Your task to perform on an android device: open app "Walmart Shopping & Grocery" (install if not already installed) and enter user name: "Hans@icloud.com" and password: "executing" Image 0: 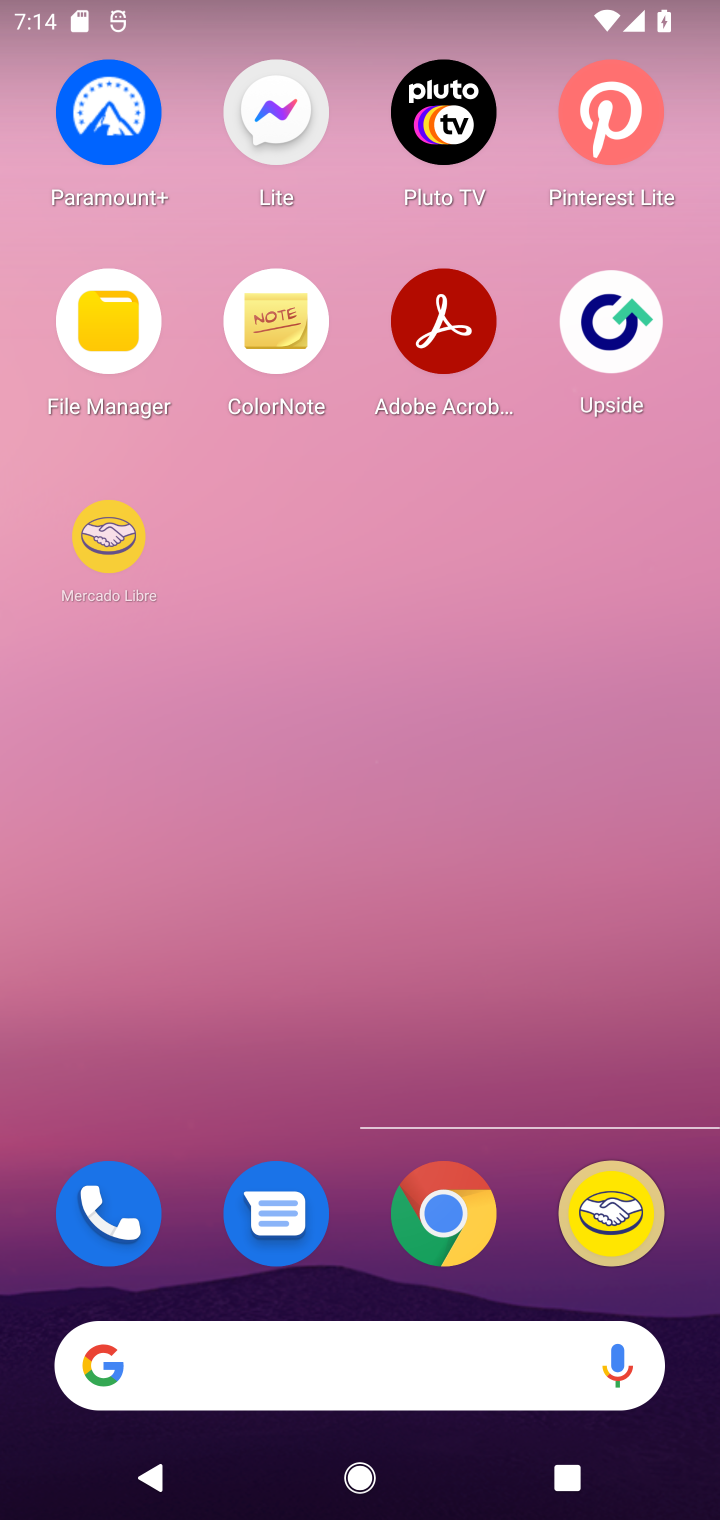
Step 0: press home button
Your task to perform on an android device: open app "Walmart Shopping & Grocery" (install if not already installed) and enter user name: "Hans@icloud.com" and password: "executing" Image 1: 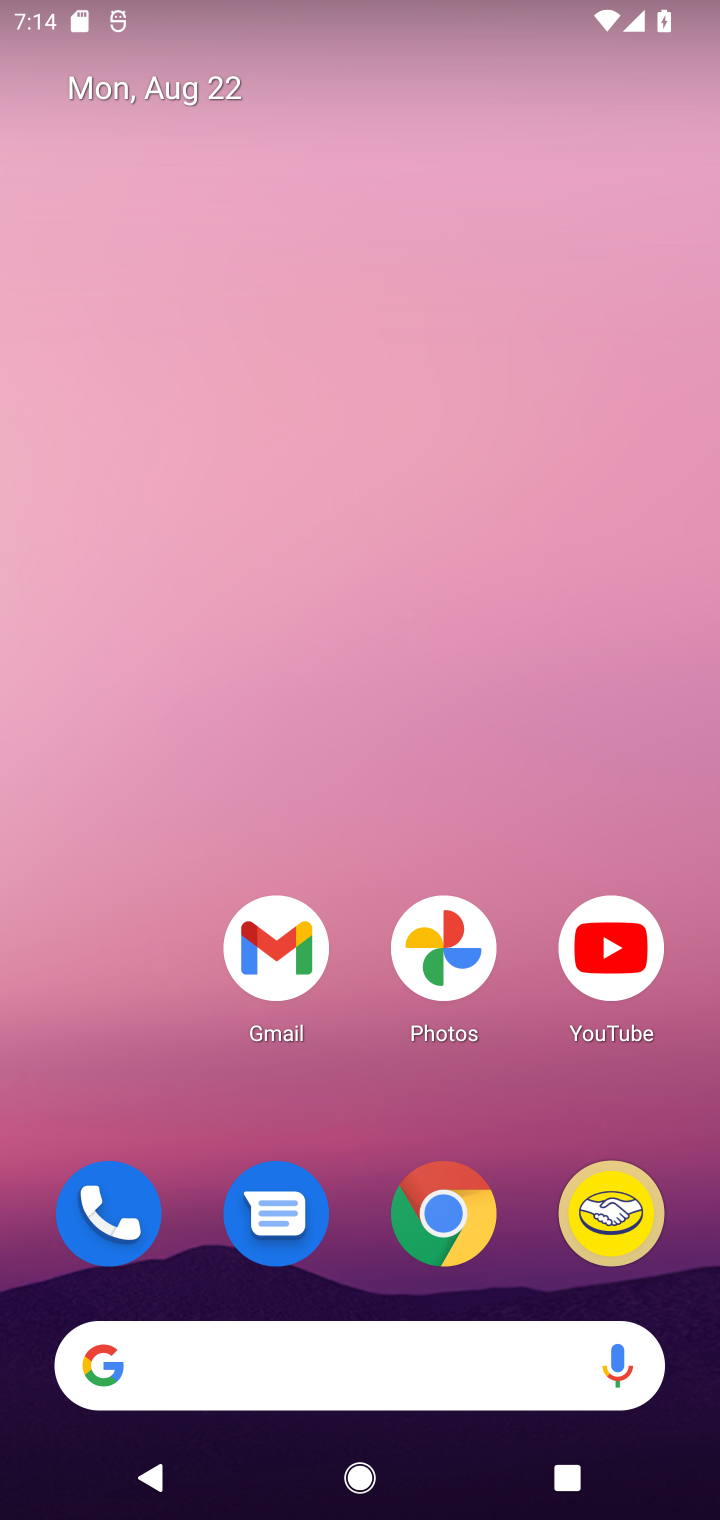
Step 1: drag from (339, 1119) to (433, 109)
Your task to perform on an android device: open app "Walmart Shopping & Grocery" (install if not already installed) and enter user name: "Hans@icloud.com" and password: "executing" Image 2: 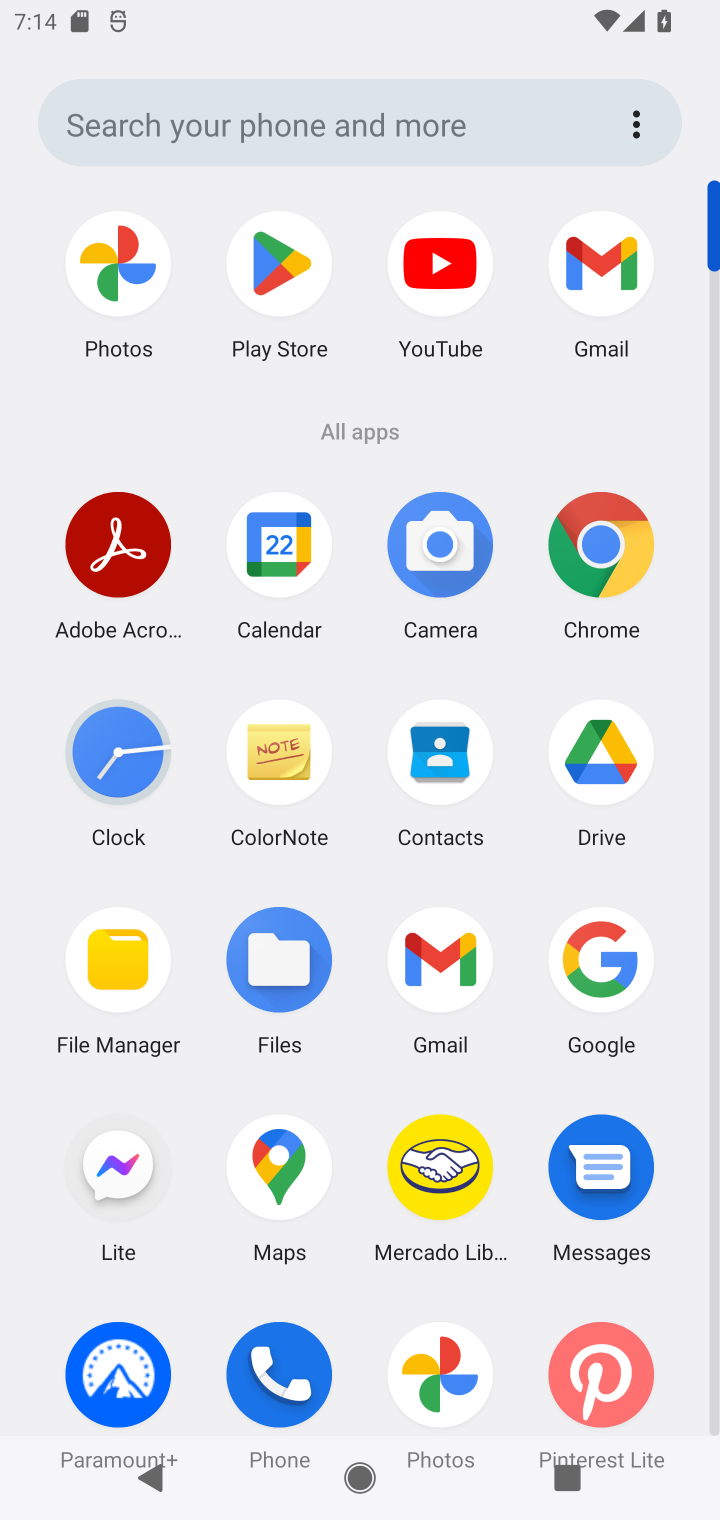
Step 2: click (270, 244)
Your task to perform on an android device: open app "Walmart Shopping & Grocery" (install if not already installed) and enter user name: "Hans@icloud.com" and password: "executing" Image 3: 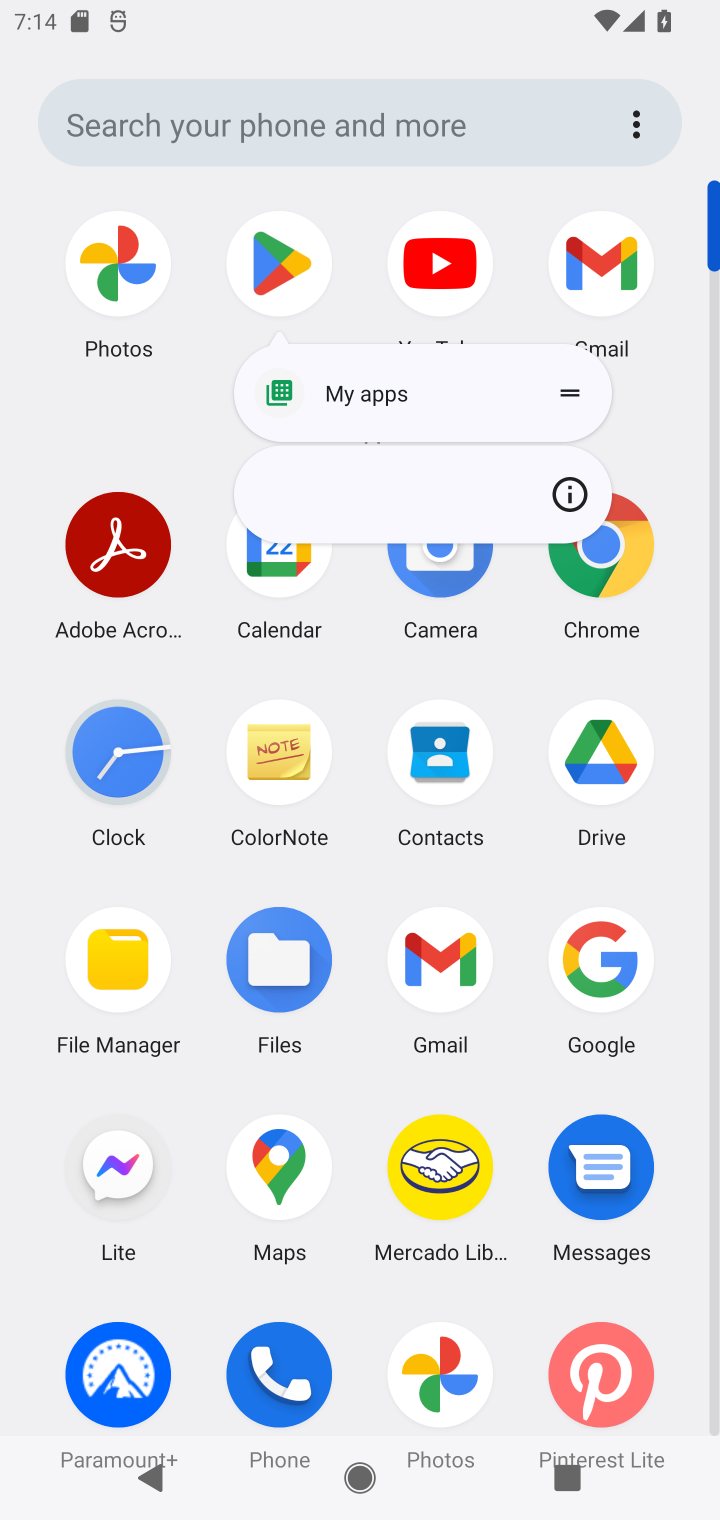
Step 3: click (270, 249)
Your task to perform on an android device: open app "Walmart Shopping & Grocery" (install if not already installed) and enter user name: "Hans@icloud.com" and password: "executing" Image 4: 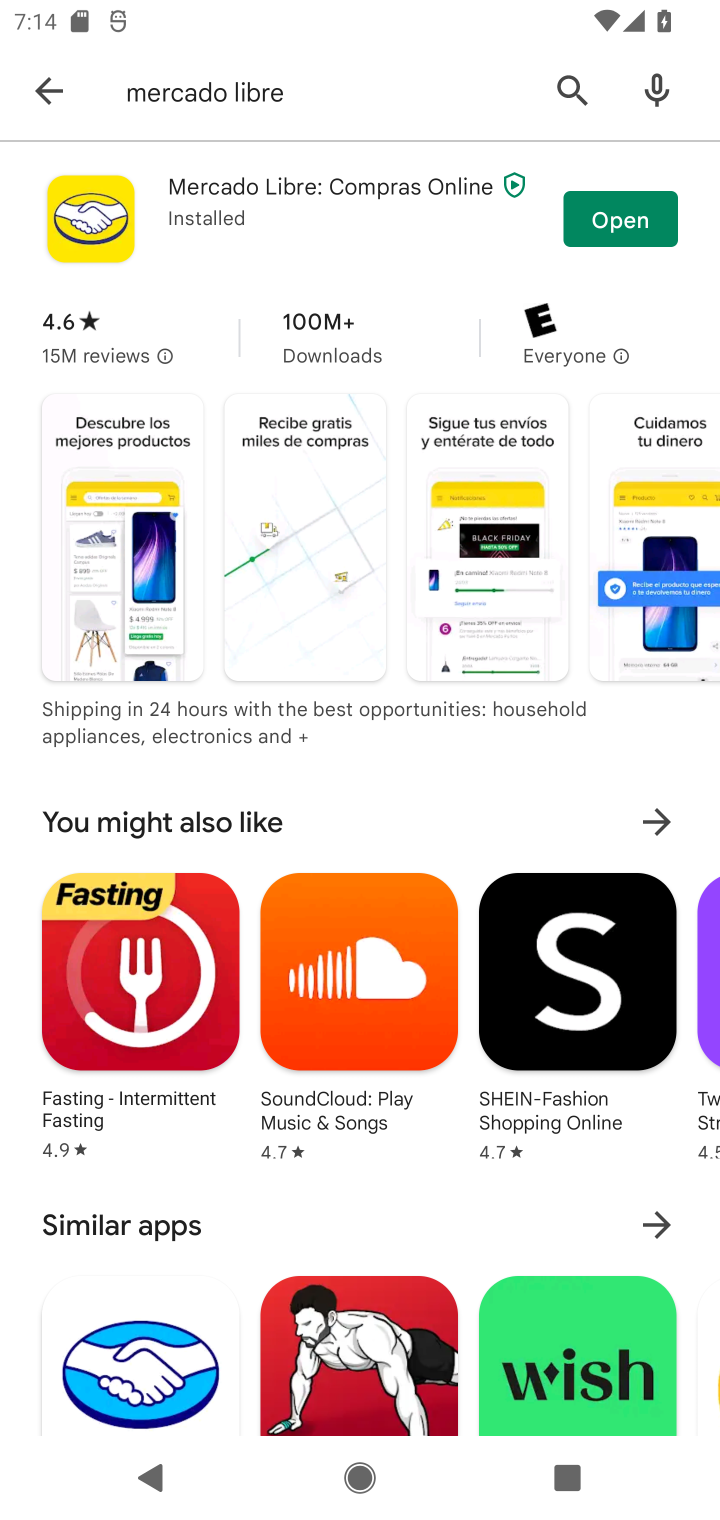
Step 4: click (576, 79)
Your task to perform on an android device: open app "Walmart Shopping & Grocery" (install if not already installed) and enter user name: "Hans@icloud.com" and password: "executing" Image 5: 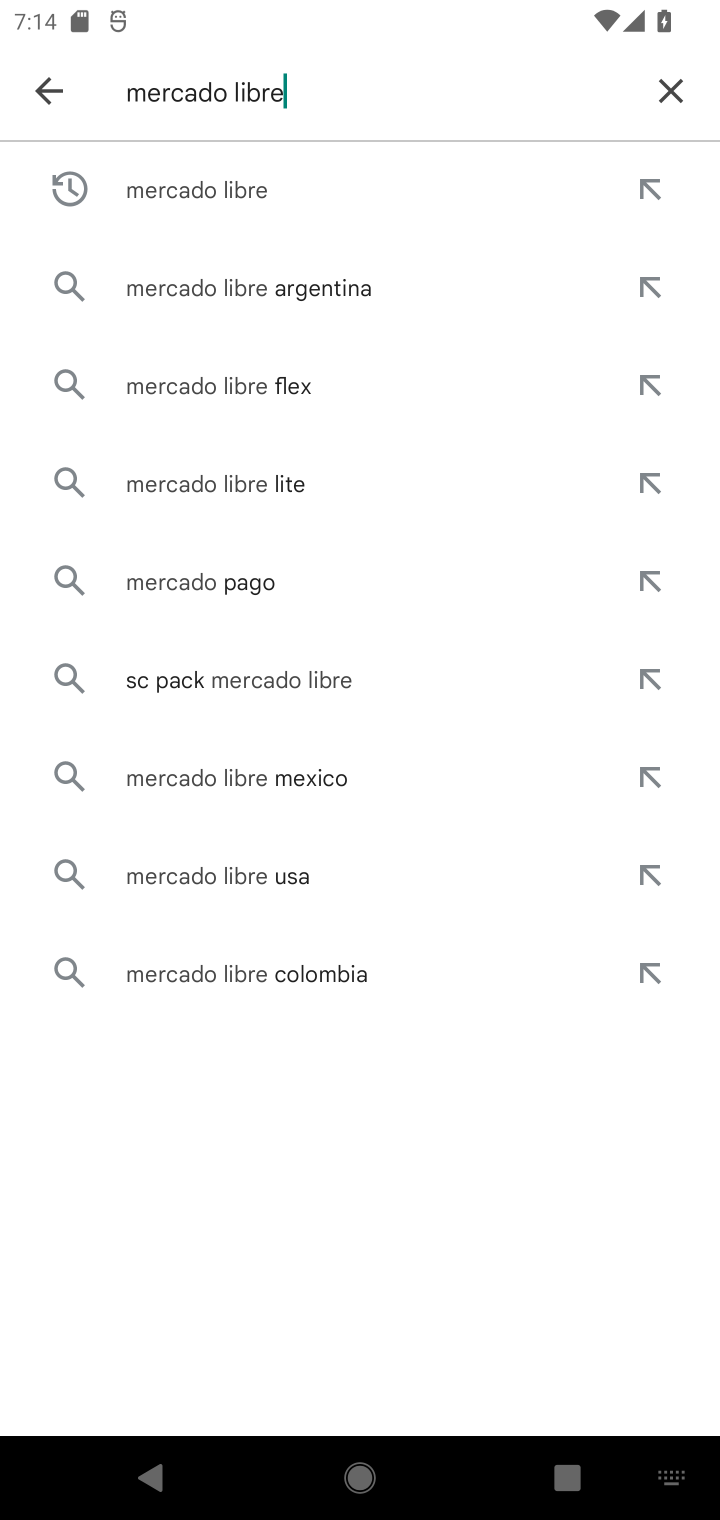
Step 5: click (674, 78)
Your task to perform on an android device: open app "Walmart Shopping & Grocery" (install if not already installed) and enter user name: "Hans@icloud.com" and password: "executing" Image 6: 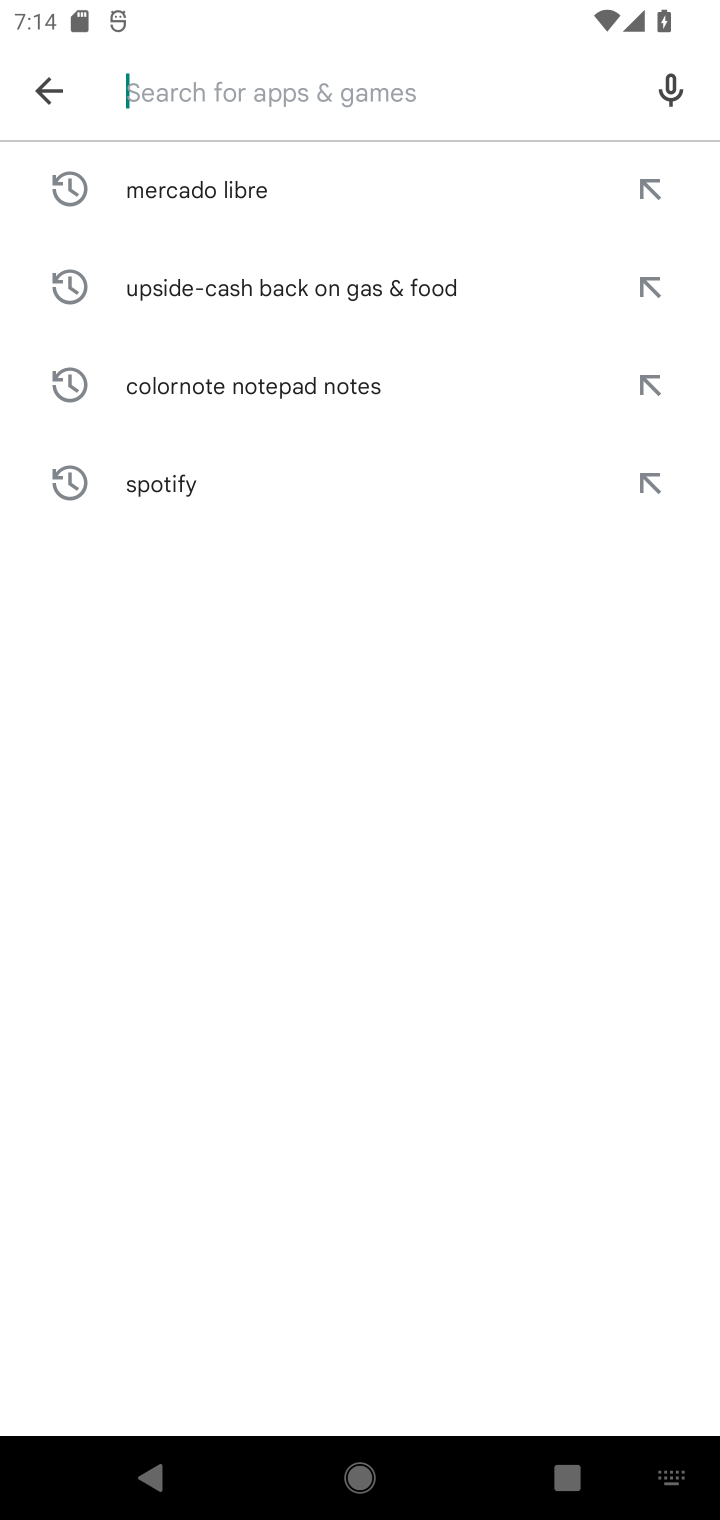
Step 6: type "Walmart Shopping & Grocery"
Your task to perform on an android device: open app "Walmart Shopping & Grocery" (install if not already installed) and enter user name: "Hans@icloud.com" and password: "executing" Image 7: 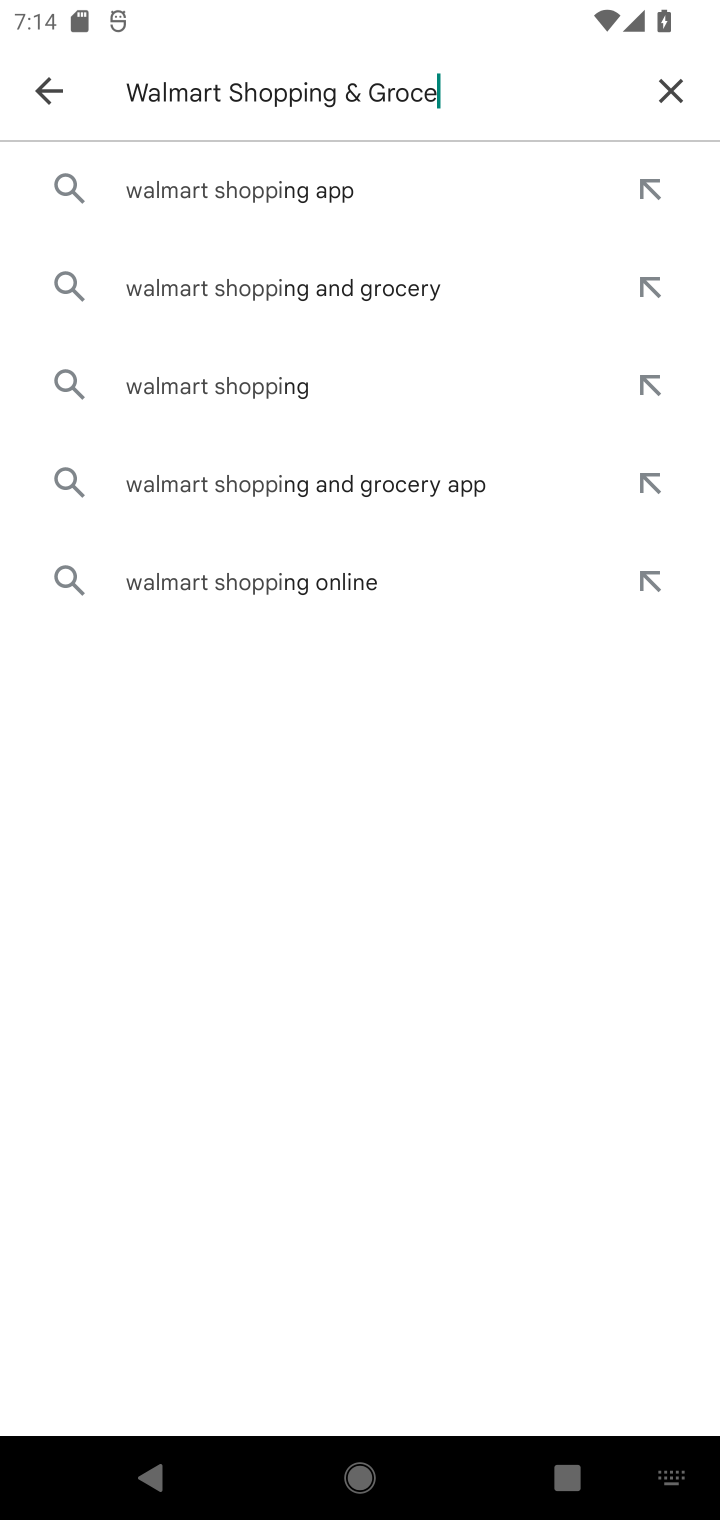
Step 7: type ""
Your task to perform on an android device: open app "Walmart Shopping & Grocery" (install if not already installed) and enter user name: "Hans@icloud.com" and password: "executing" Image 8: 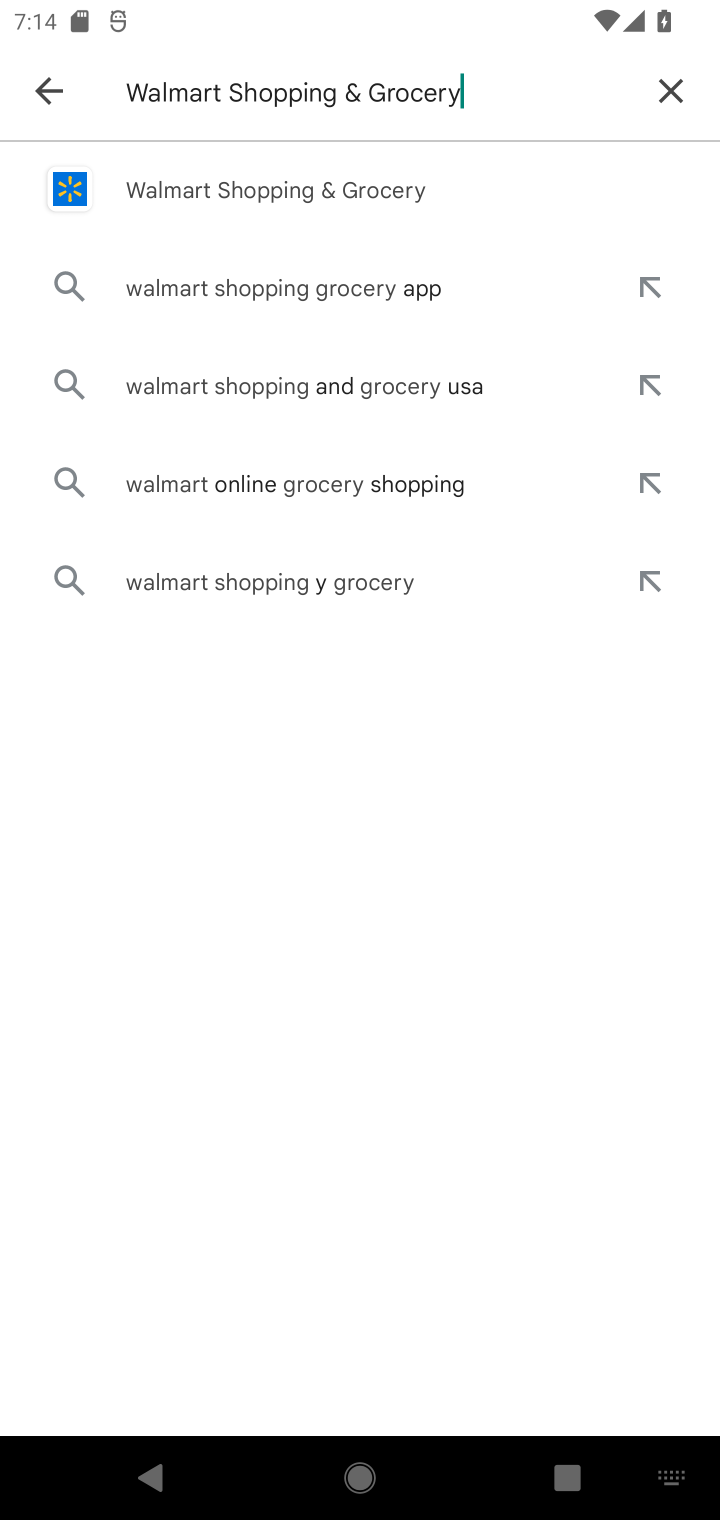
Step 8: click (304, 173)
Your task to perform on an android device: open app "Walmart Shopping & Grocery" (install if not already installed) and enter user name: "Hans@icloud.com" and password: "executing" Image 9: 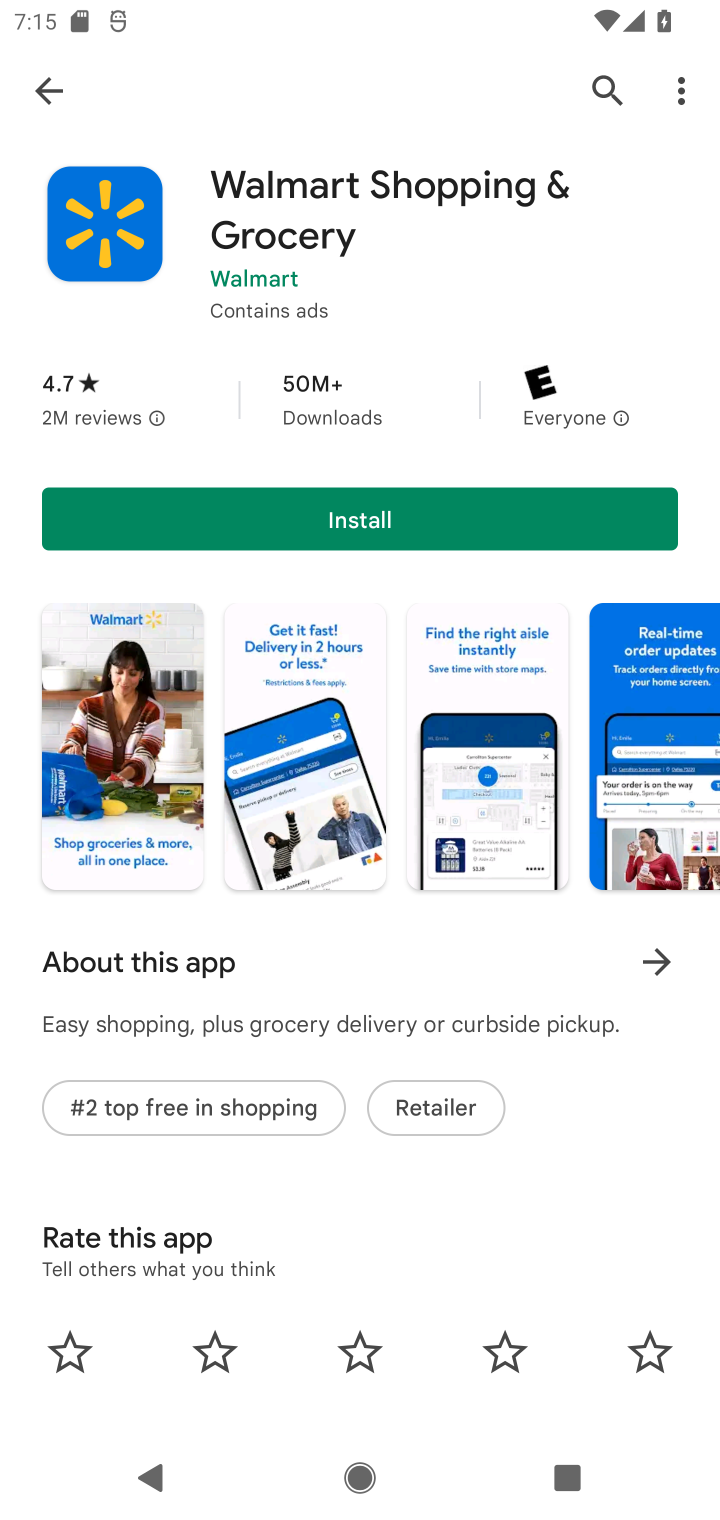
Step 9: click (367, 520)
Your task to perform on an android device: open app "Walmart Shopping & Grocery" (install if not already installed) and enter user name: "Hans@icloud.com" and password: "executing" Image 10: 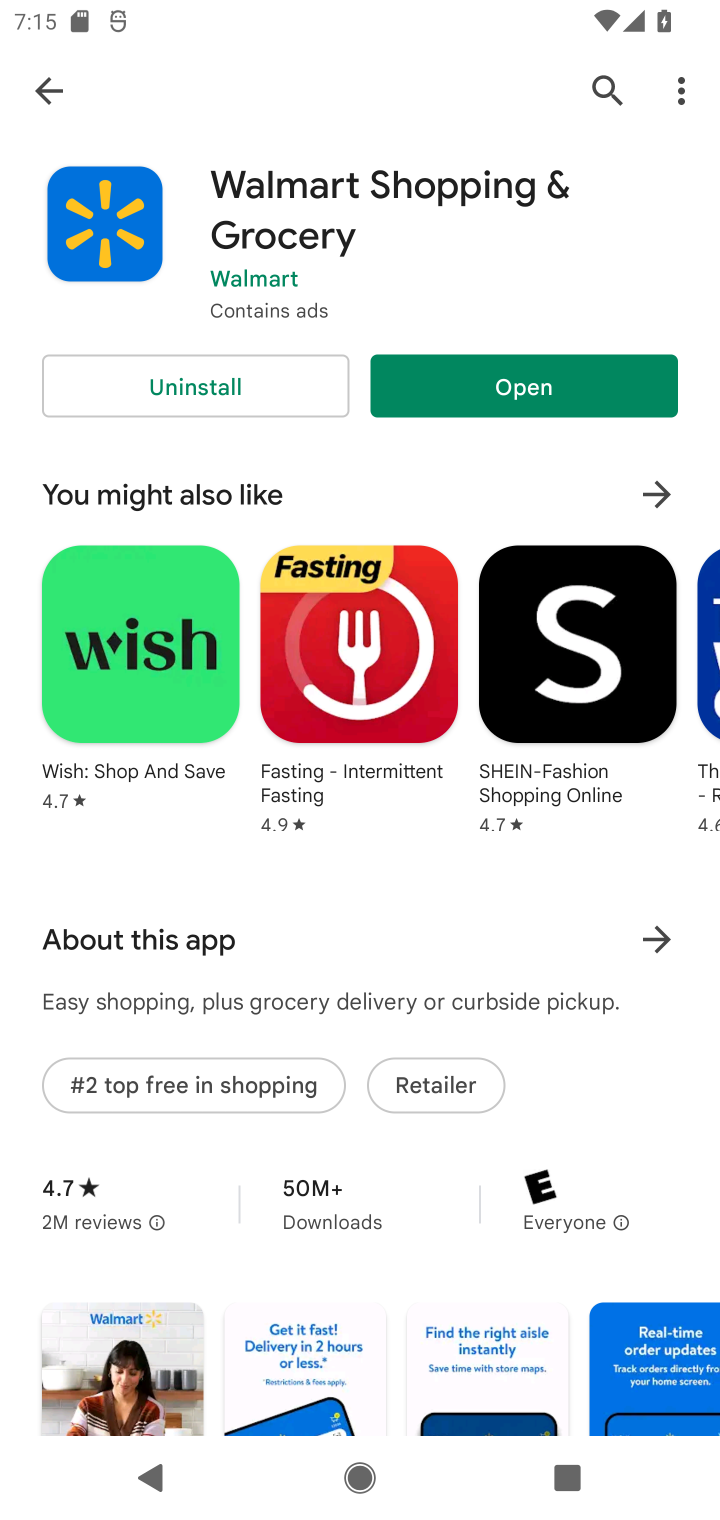
Step 10: click (520, 410)
Your task to perform on an android device: open app "Walmart Shopping & Grocery" (install if not already installed) and enter user name: "Hans@icloud.com" and password: "executing" Image 11: 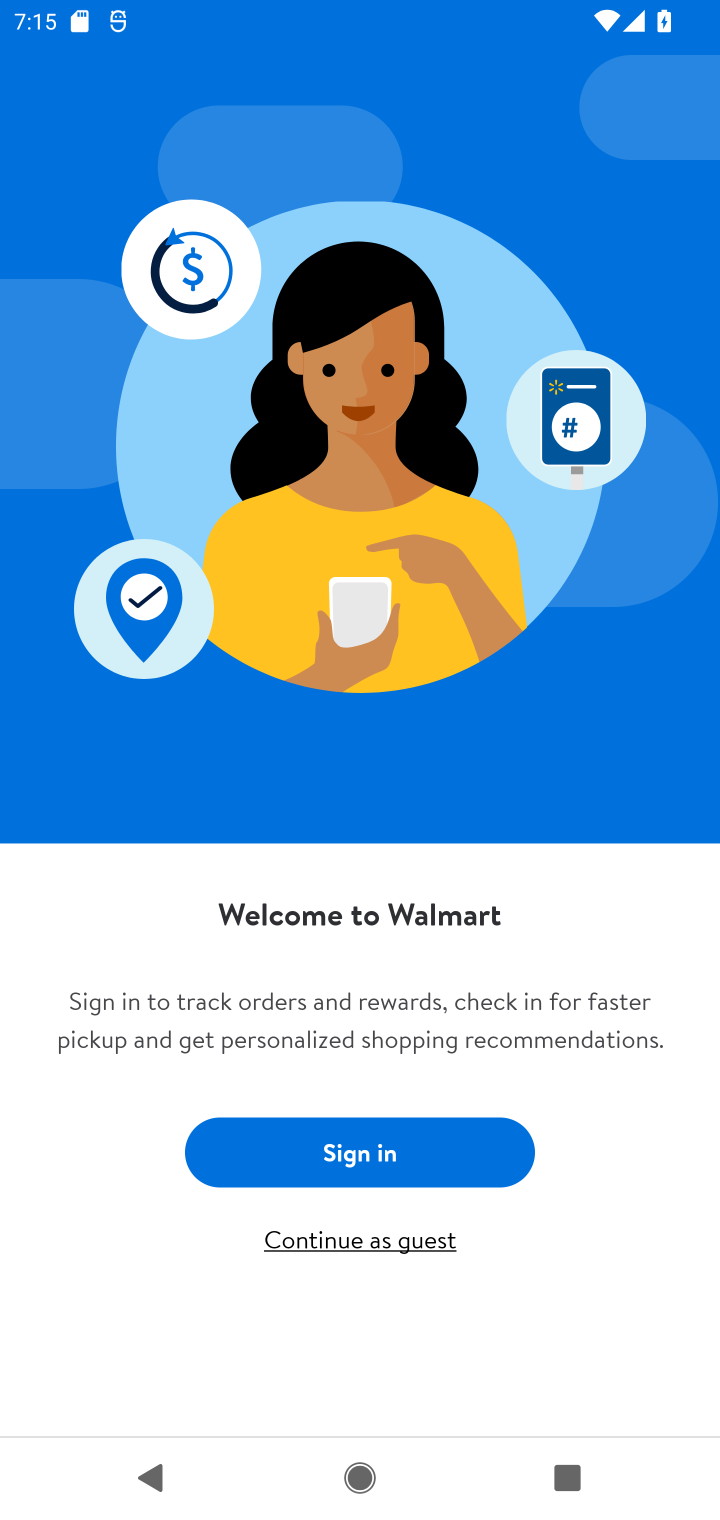
Step 11: click (353, 1141)
Your task to perform on an android device: open app "Walmart Shopping & Grocery" (install if not already installed) and enter user name: "Hans@icloud.com" and password: "executing" Image 12: 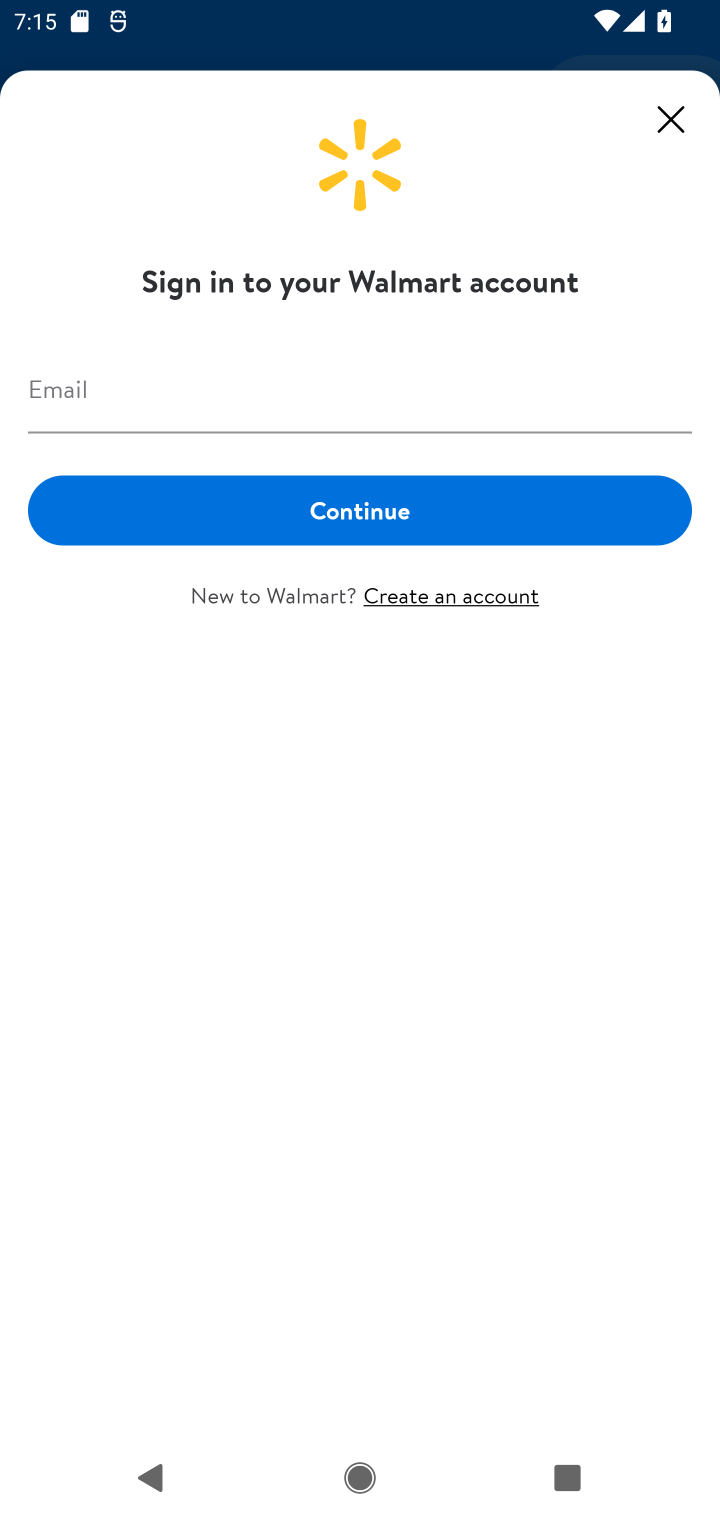
Step 12: click (108, 377)
Your task to perform on an android device: open app "Walmart Shopping & Grocery" (install if not already installed) and enter user name: "Hans@icloud.com" and password: "executing" Image 13: 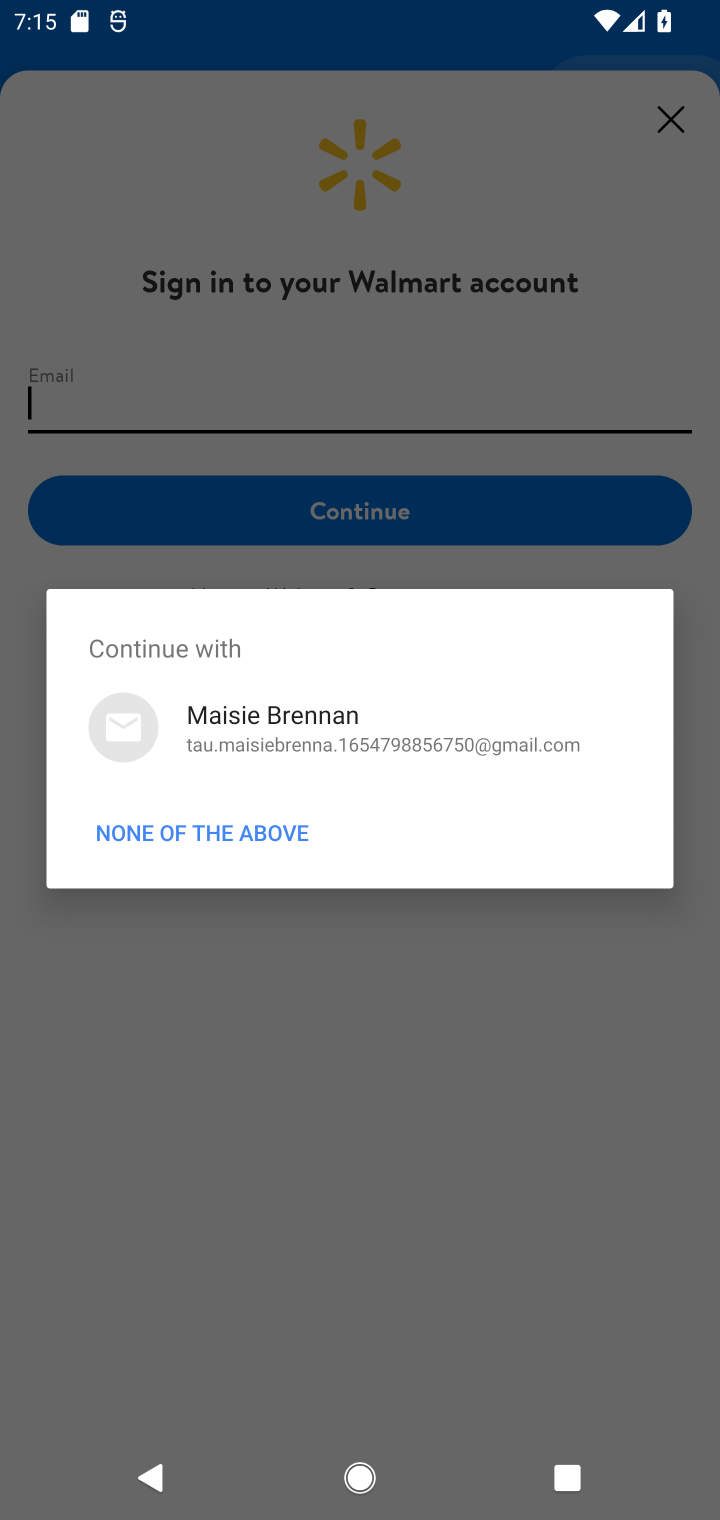
Step 13: type "Hans@icloud.com"
Your task to perform on an android device: open app "Walmart Shopping & Grocery" (install if not already installed) and enter user name: "Hans@icloud.com" and password: "executing" Image 14: 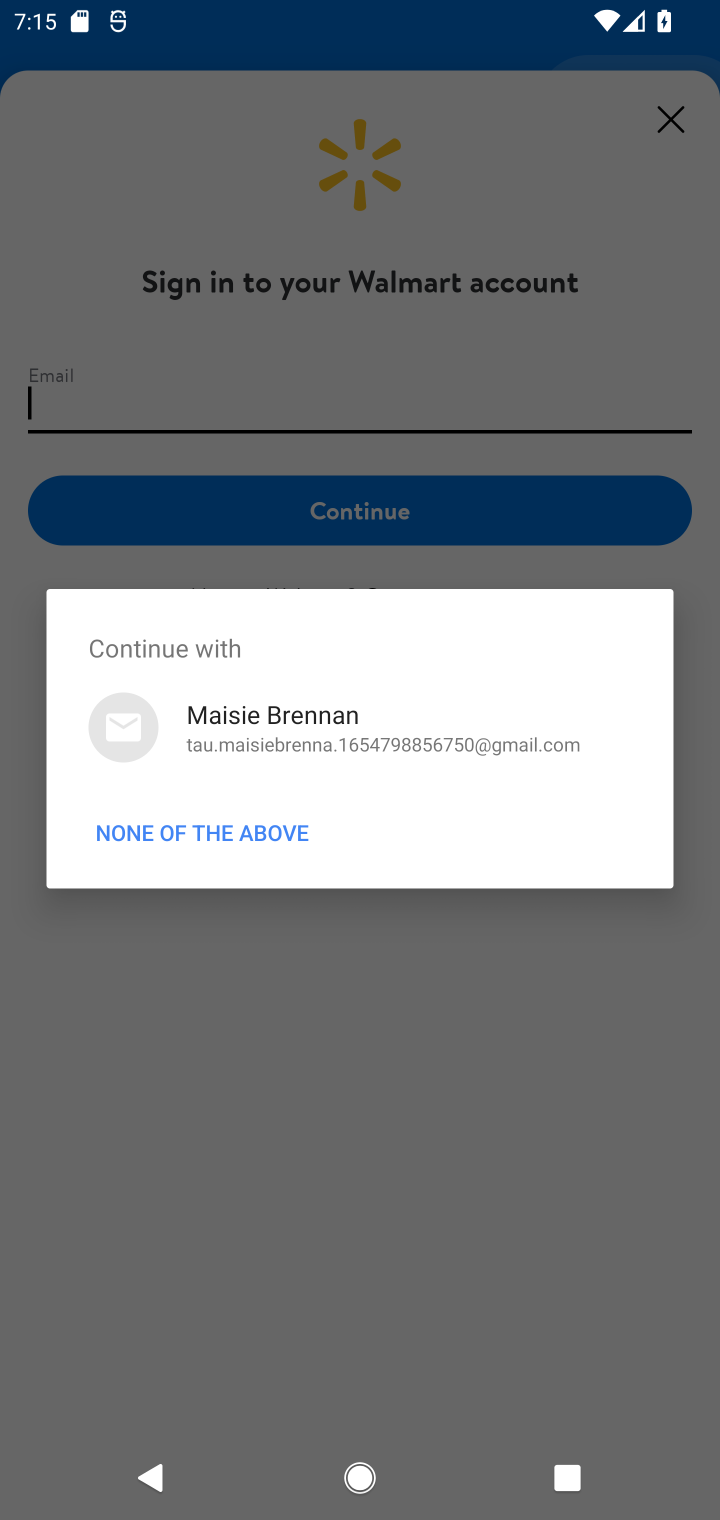
Step 14: click (196, 842)
Your task to perform on an android device: open app "Walmart Shopping & Grocery" (install if not already installed) and enter user name: "Hans@icloud.com" and password: "executing" Image 15: 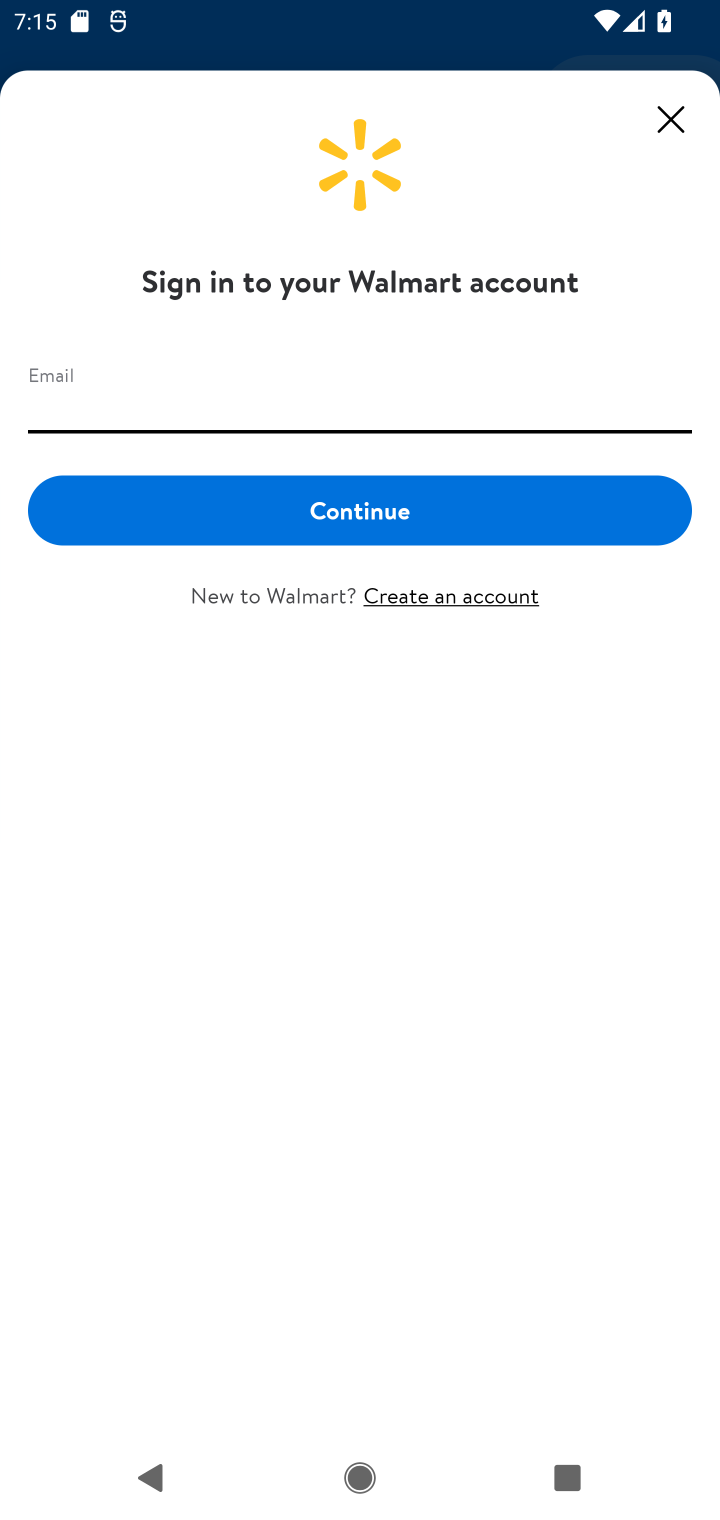
Step 15: type "Hans@icloud.com"
Your task to perform on an android device: open app "Walmart Shopping & Grocery" (install if not already installed) and enter user name: "Hans@icloud.com" and password: "executing" Image 16: 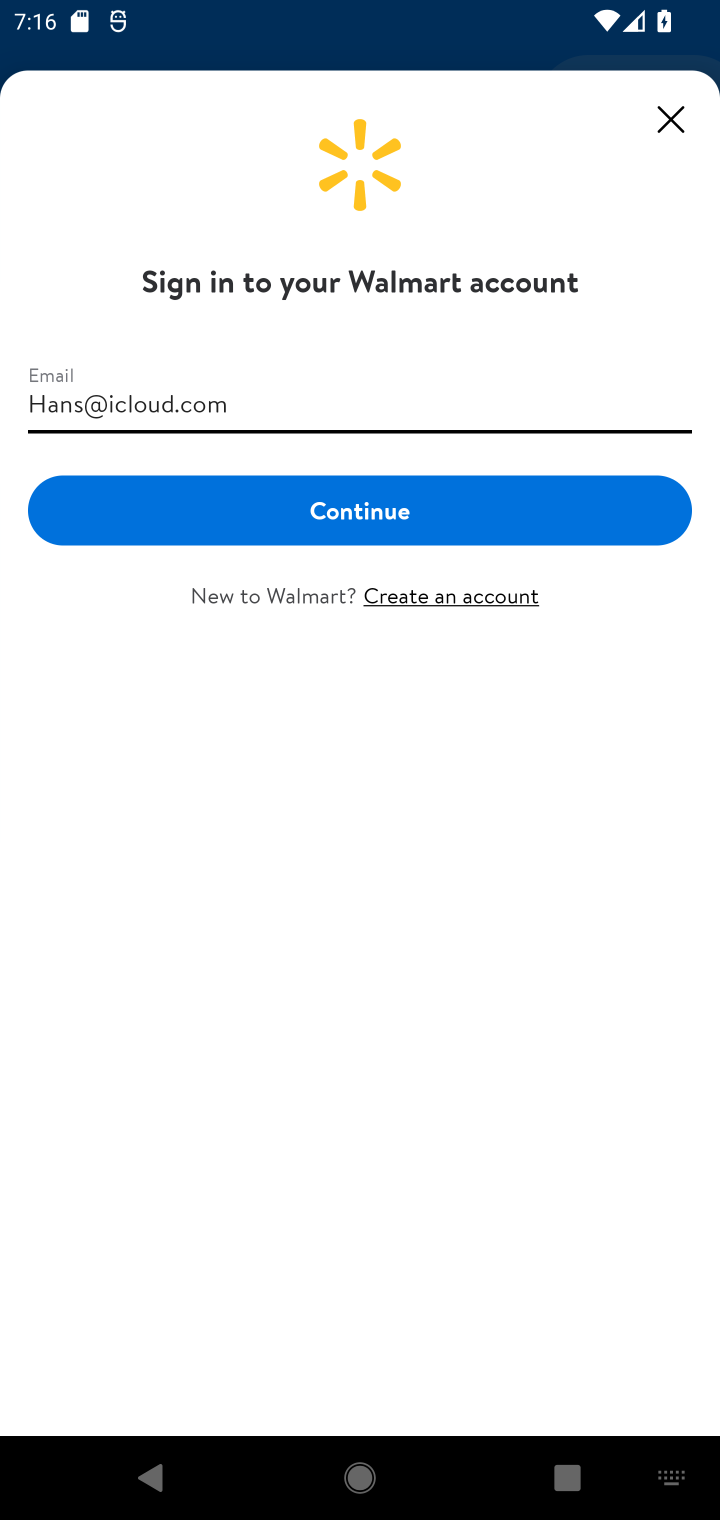
Step 16: click (400, 530)
Your task to perform on an android device: open app "Walmart Shopping & Grocery" (install if not already installed) and enter user name: "Hans@icloud.com" and password: "executing" Image 17: 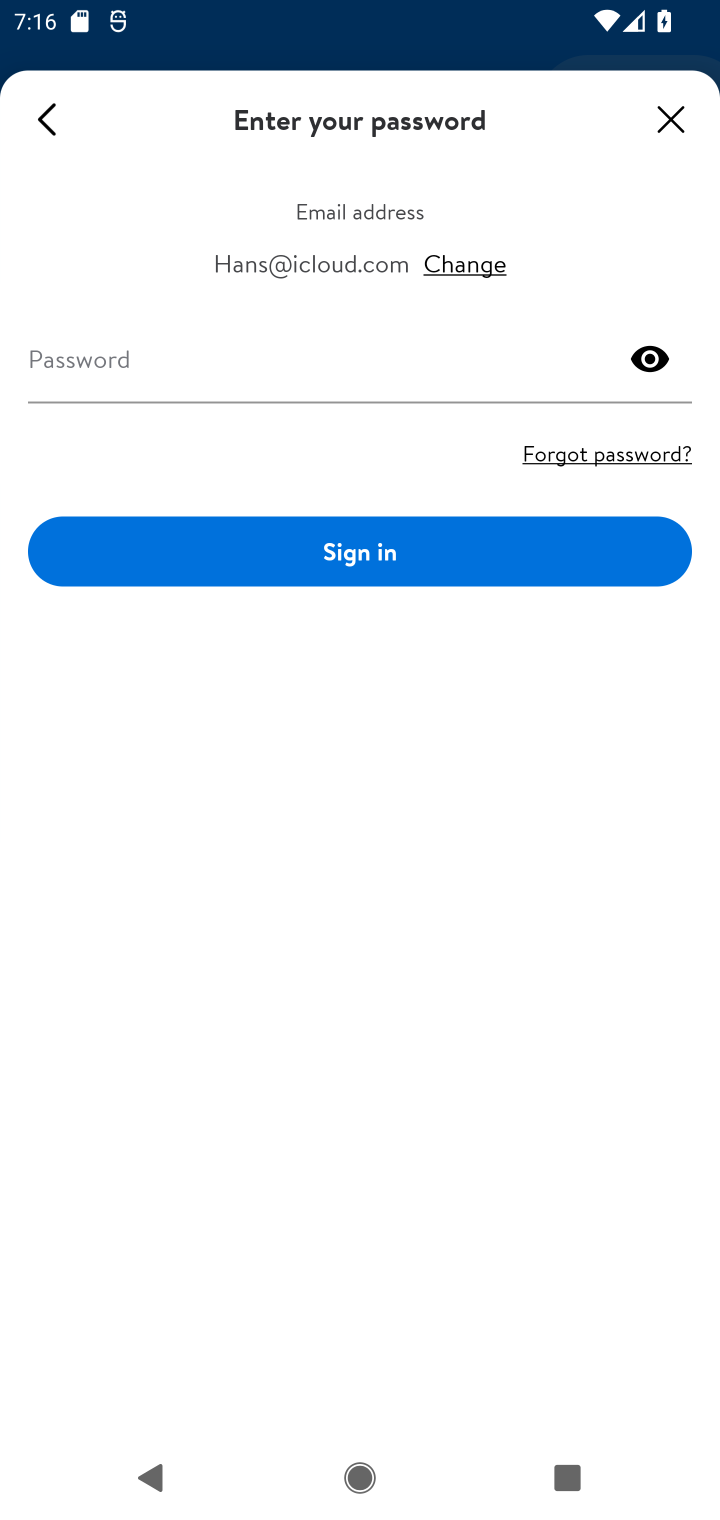
Step 17: click (128, 350)
Your task to perform on an android device: open app "Walmart Shopping & Grocery" (install if not already installed) and enter user name: "Hans@icloud.com" and password: "executing" Image 18: 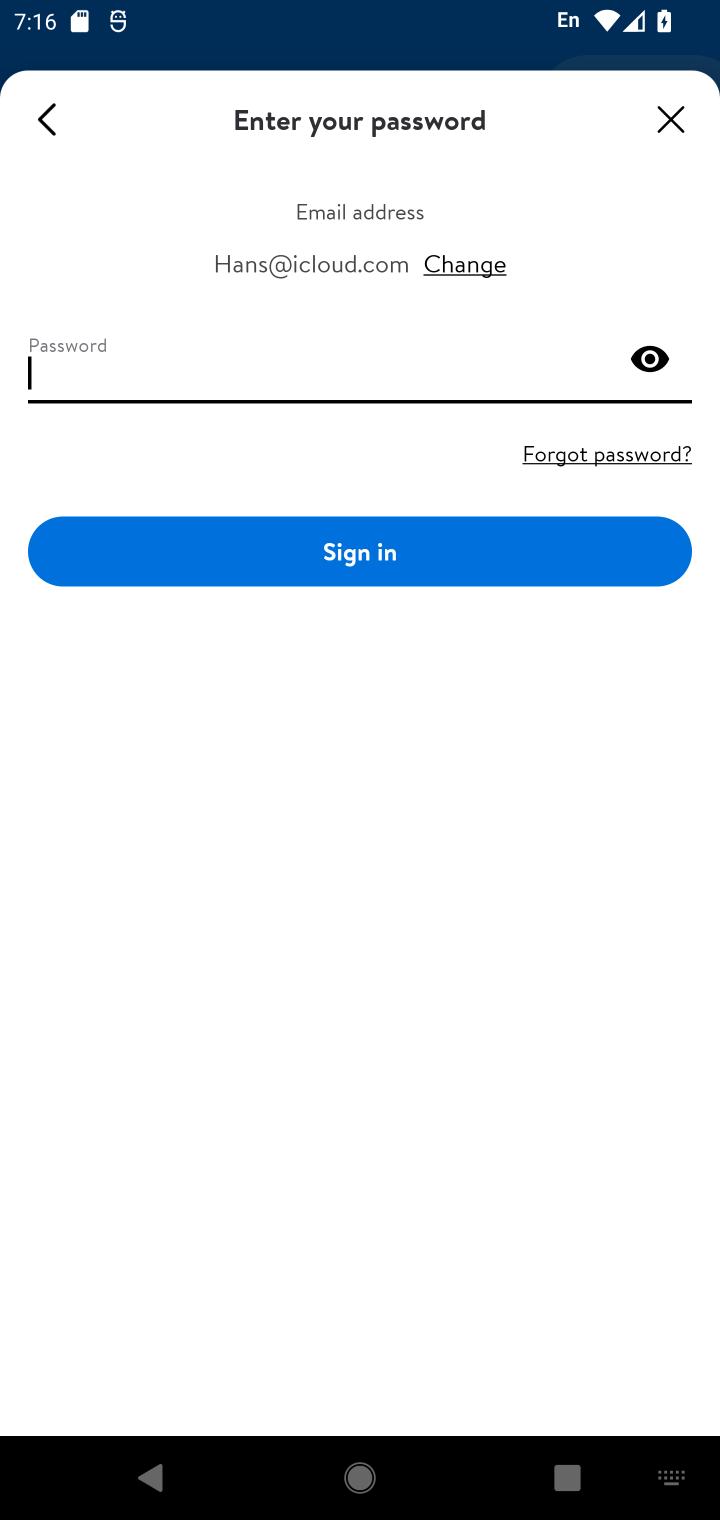
Step 18: type "executing"
Your task to perform on an android device: open app "Walmart Shopping & Grocery" (install if not already installed) and enter user name: "Hans@icloud.com" and password: "executing" Image 19: 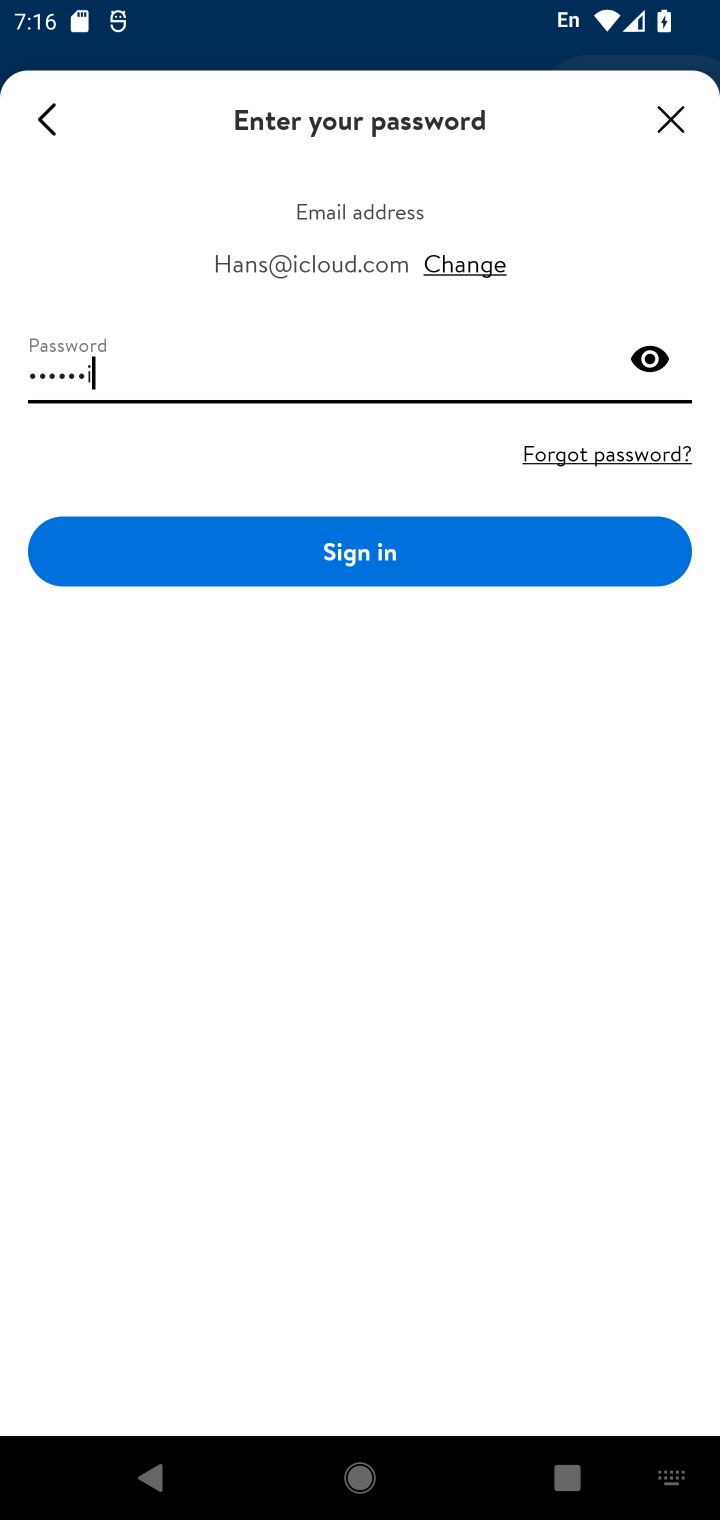
Step 19: type ""
Your task to perform on an android device: open app "Walmart Shopping & Grocery" (install if not already installed) and enter user name: "Hans@icloud.com" and password: "executing" Image 20: 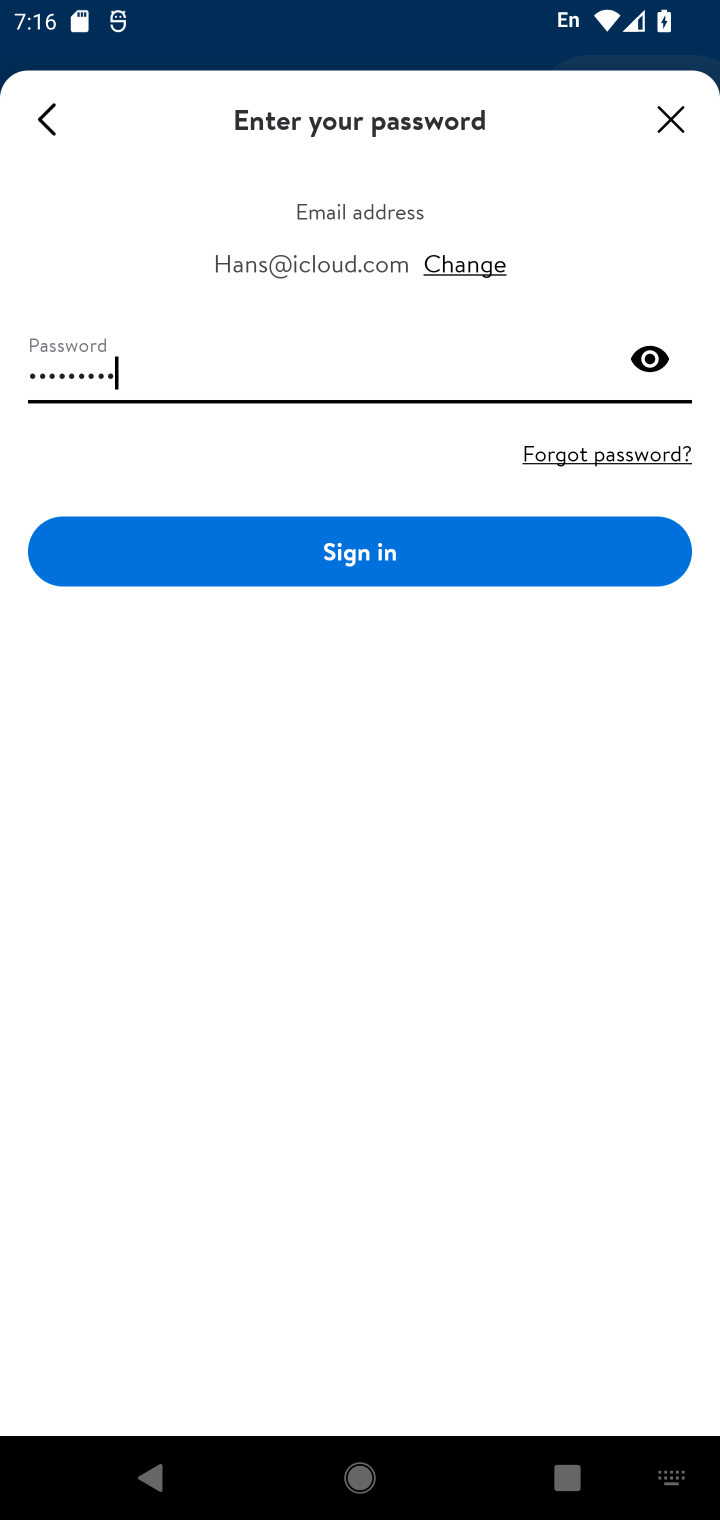
Step 20: click (652, 360)
Your task to perform on an android device: open app "Walmart Shopping & Grocery" (install if not already installed) and enter user name: "Hans@icloud.com" and password: "executing" Image 21: 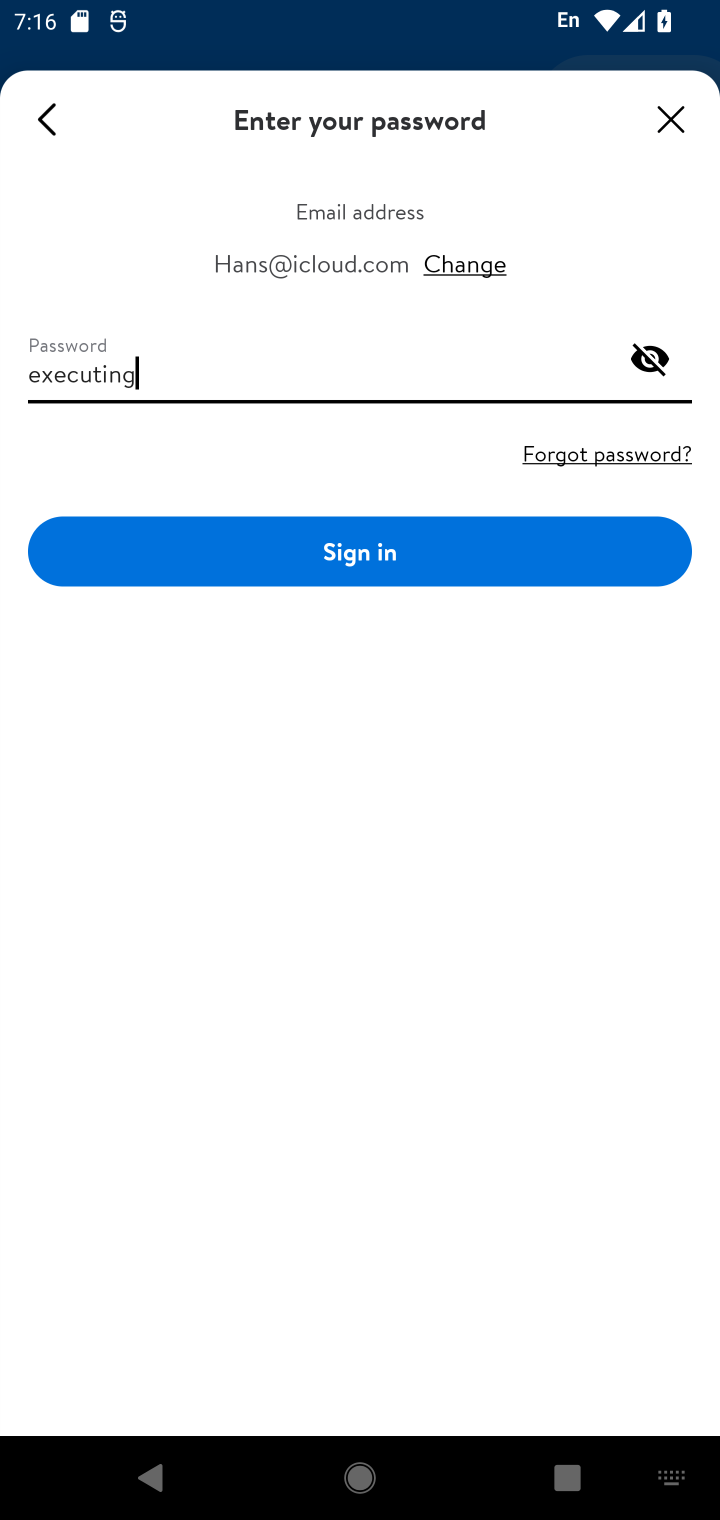
Step 21: click (357, 553)
Your task to perform on an android device: open app "Walmart Shopping & Grocery" (install if not already installed) and enter user name: "Hans@icloud.com" and password: "executing" Image 22: 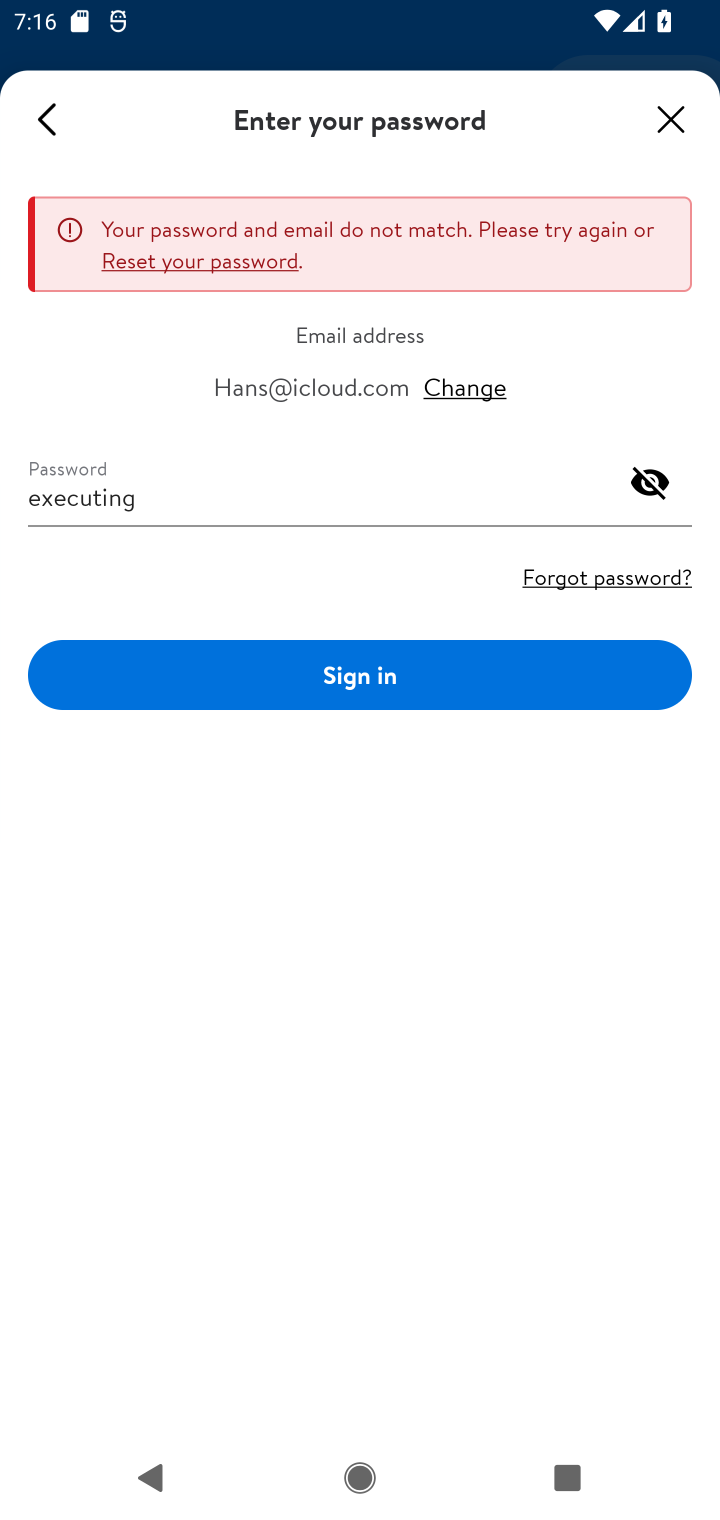
Step 22: task complete